Your task to perform on an android device: check battery use Image 0: 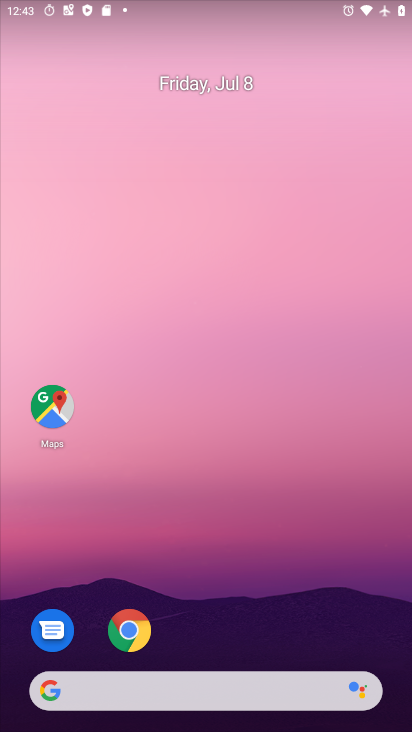
Step 0: drag from (214, 624) to (221, 164)
Your task to perform on an android device: check battery use Image 1: 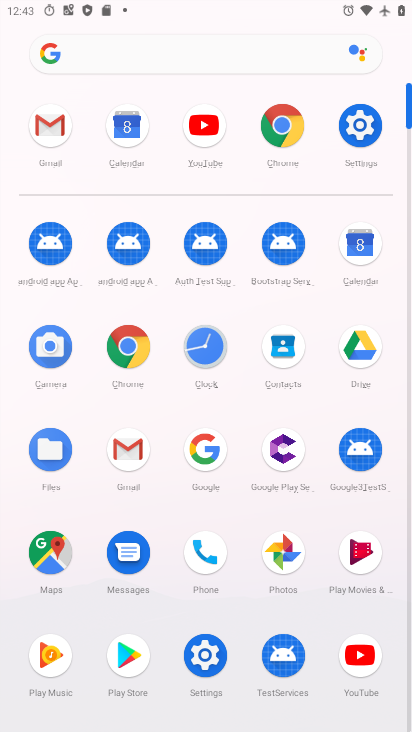
Step 1: click (340, 111)
Your task to perform on an android device: check battery use Image 2: 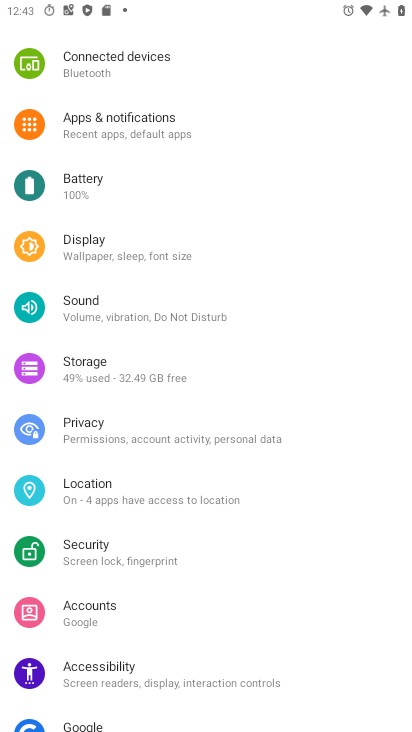
Step 2: click (98, 185)
Your task to perform on an android device: check battery use Image 3: 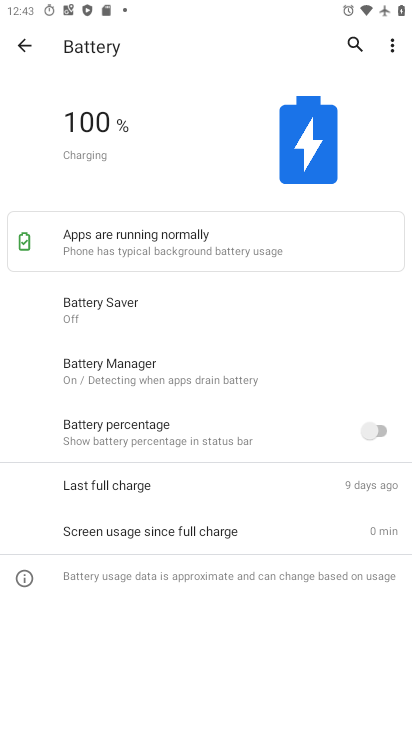
Step 3: click (388, 46)
Your task to perform on an android device: check battery use Image 4: 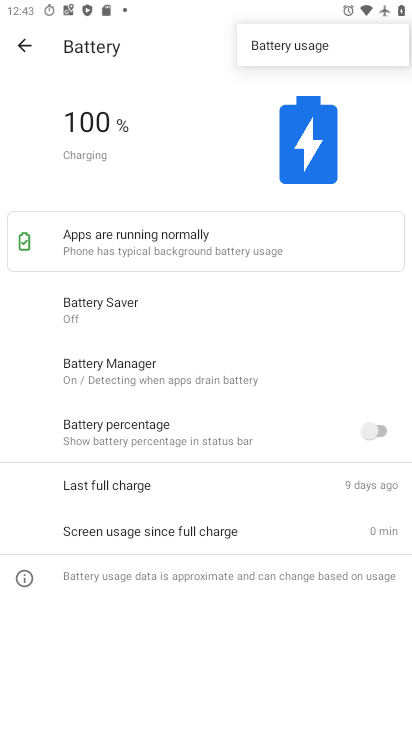
Step 4: click (276, 50)
Your task to perform on an android device: check battery use Image 5: 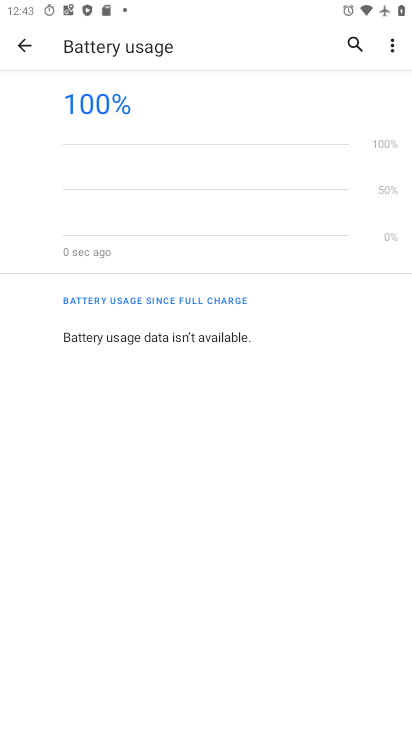
Step 5: task complete